Your task to perform on an android device: How do I get to the nearest McDonalds? Image 0: 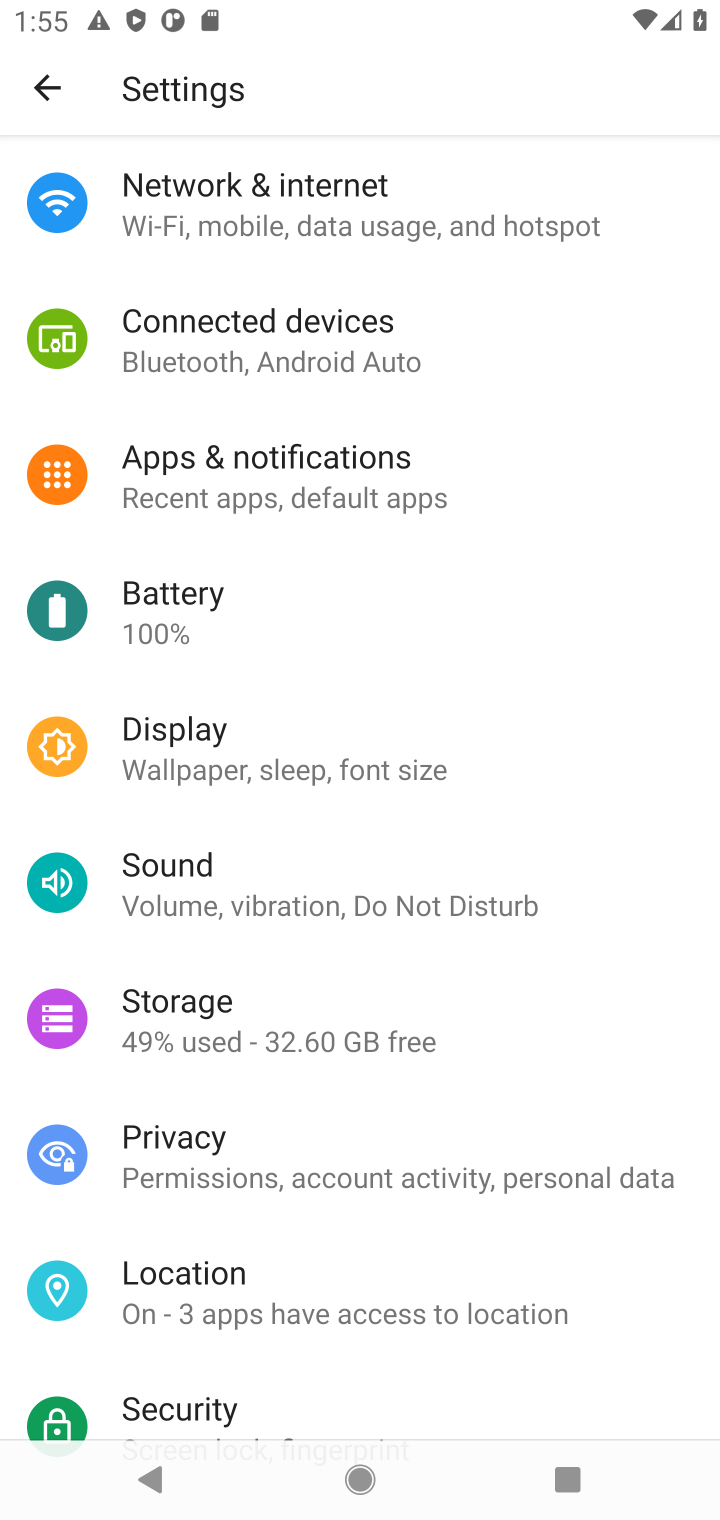
Step 0: press back button
Your task to perform on an android device: How do I get to the nearest McDonalds? Image 1: 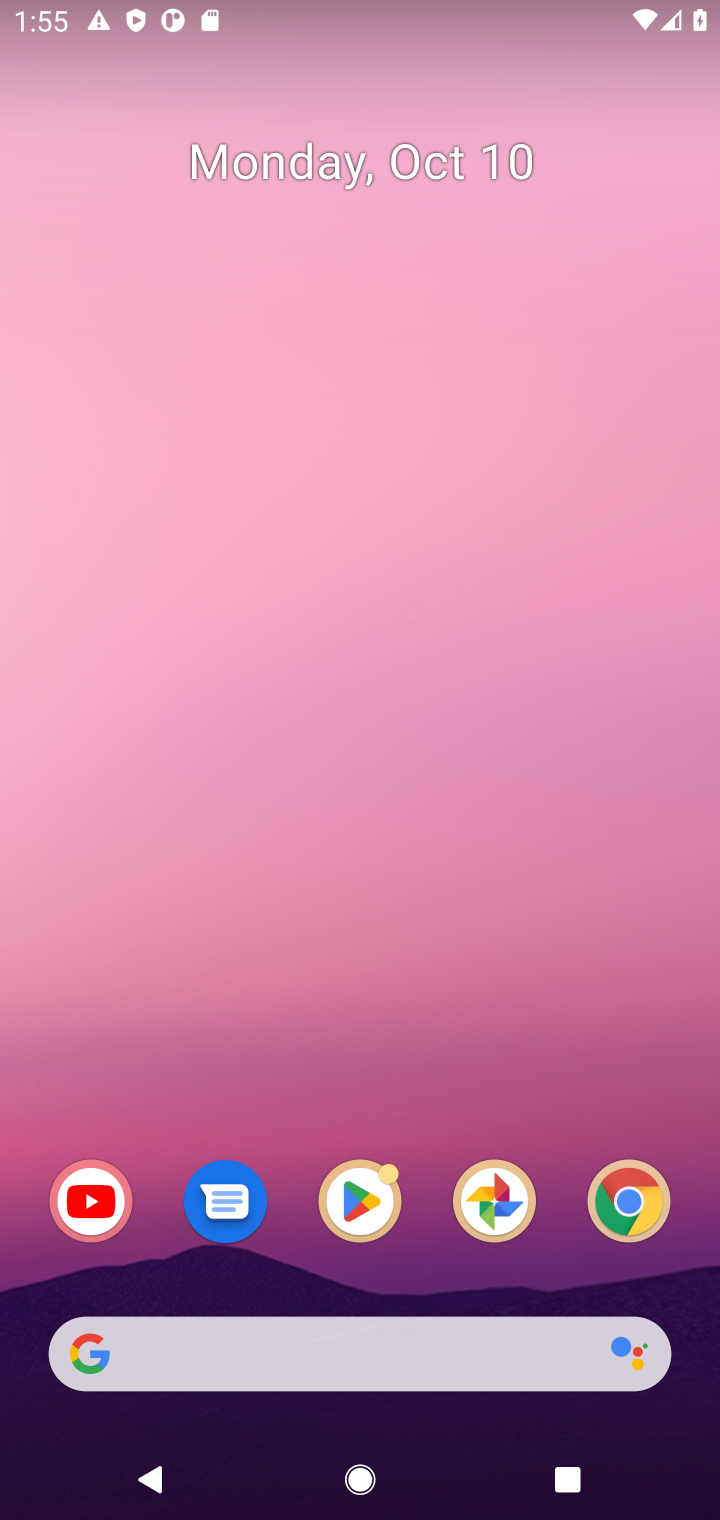
Step 1: click (325, 1354)
Your task to perform on an android device: How do I get to the nearest McDonalds? Image 2: 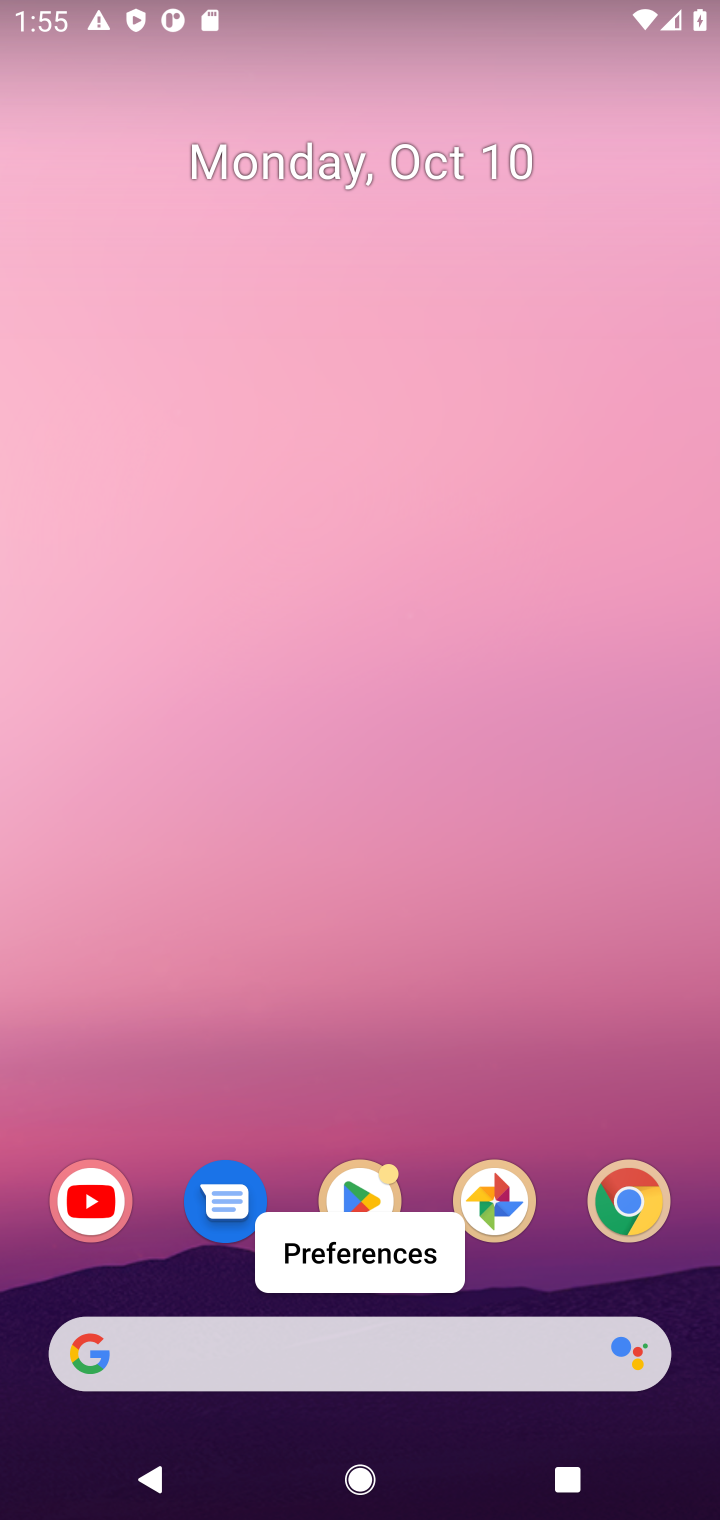
Step 2: click (440, 1355)
Your task to perform on an android device: How do I get to the nearest McDonalds? Image 3: 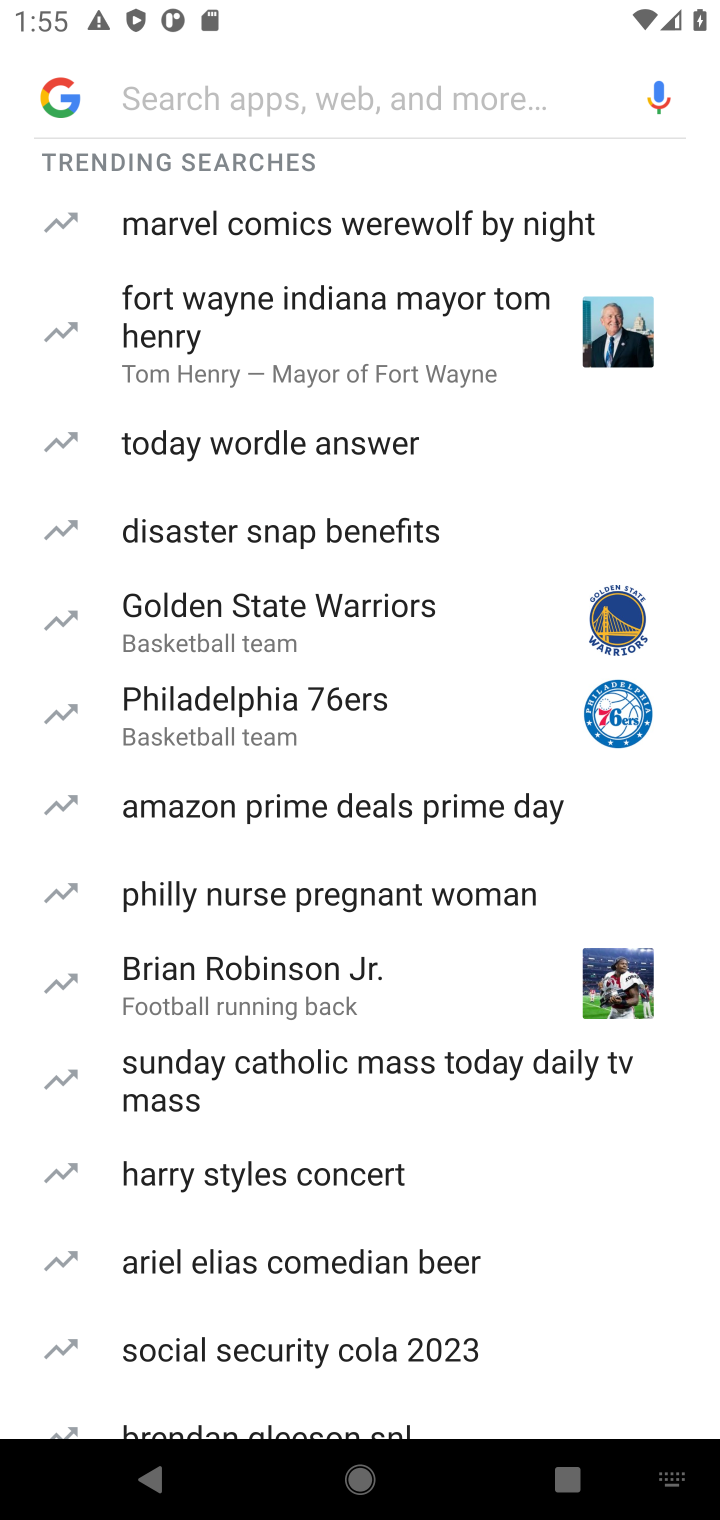
Step 3: type "nearest McDonalds"
Your task to perform on an android device: How do I get to the nearest McDonalds? Image 4: 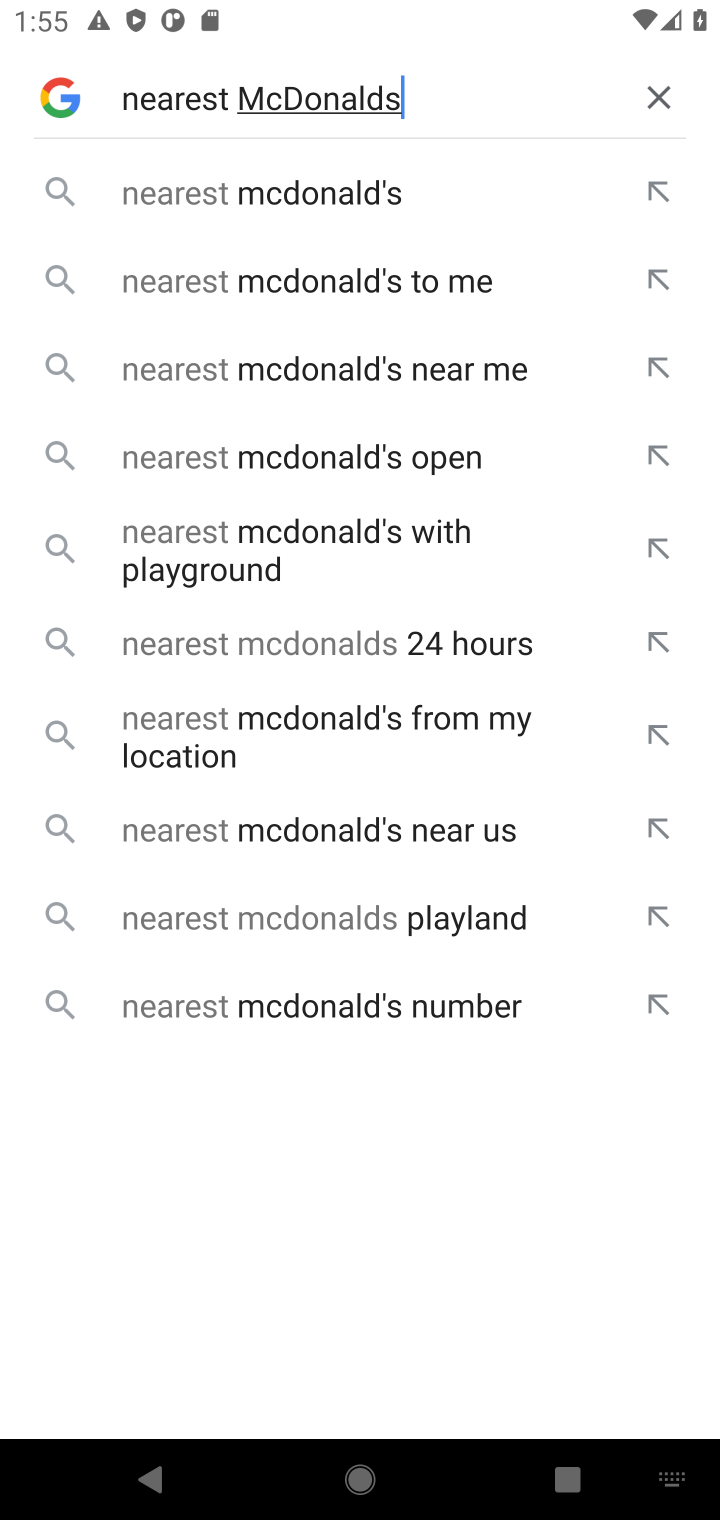
Step 4: type ""
Your task to perform on an android device: How do I get to the nearest McDonalds? Image 5: 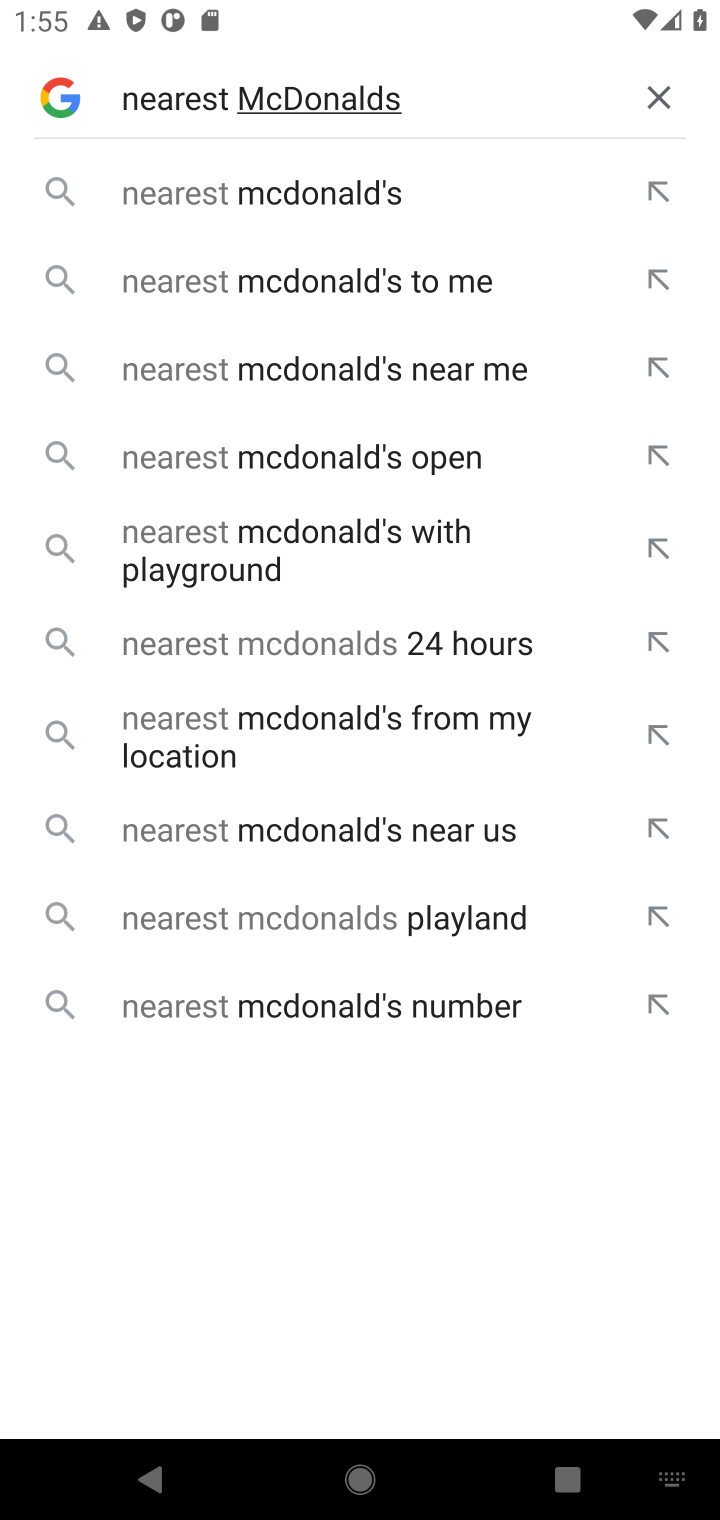
Step 5: press enter
Your task to perform on an android device: How do I get to the nearest McDonalds? Image 6: 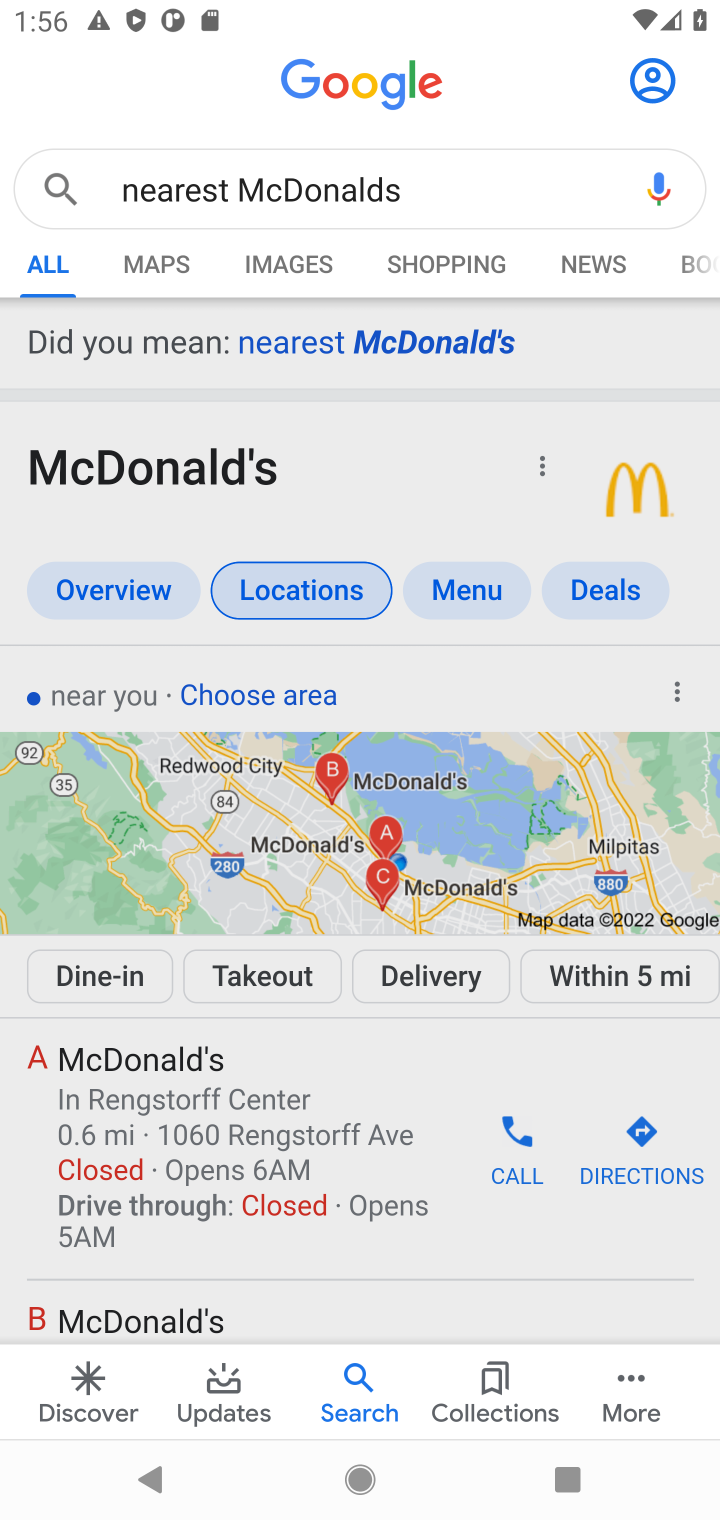
Step 6: drag from (479, 1294) to (456, 604)
Your task to perform on an android device: How do I get to the nearest McDonalds? Image 7: 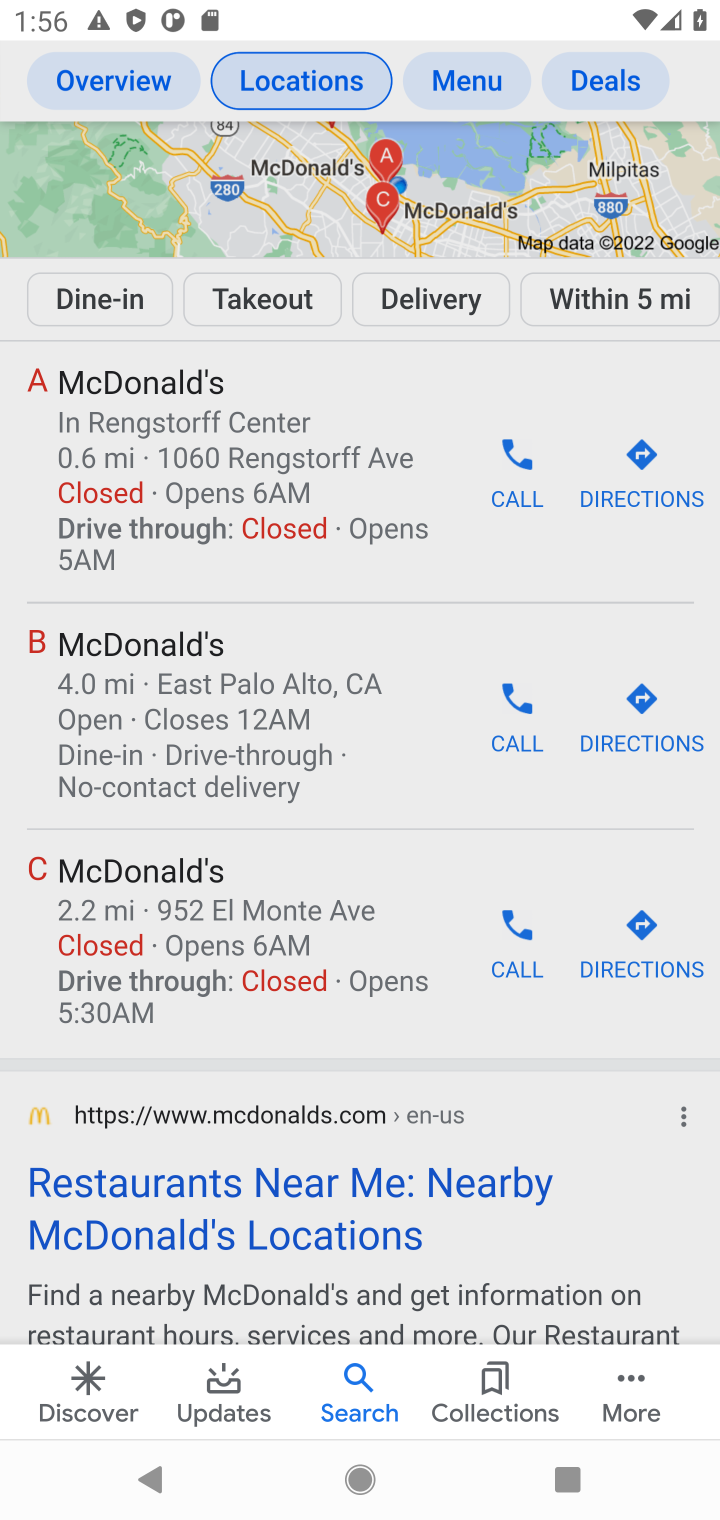
Step 7: drag from (470, 1014) to (406, 471)
Your task to perform on an android device: How do I get to the nearest McDonalds? Image 8: 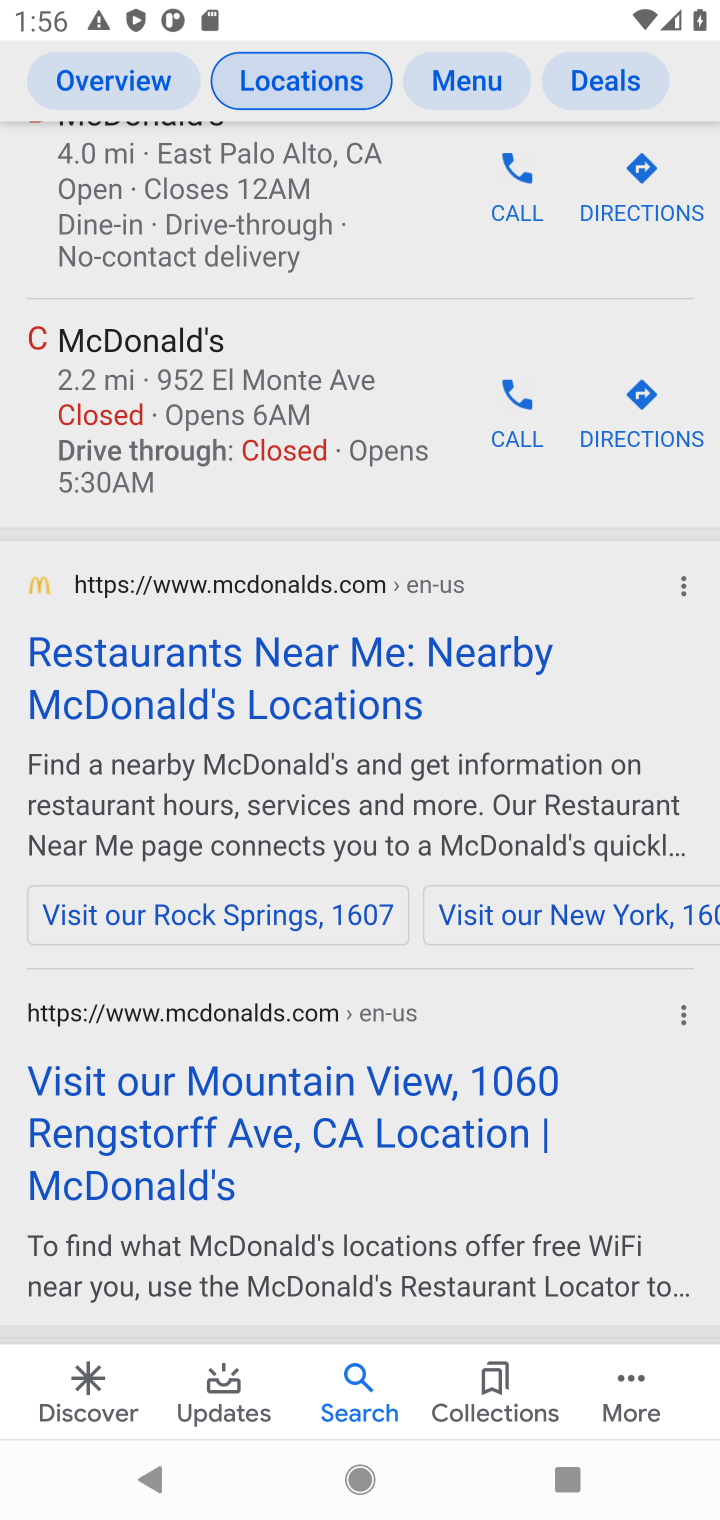
Step 8: drag from (580, 1121) to (511, 235)
Your task to perform on an android device: How do I get to the nearest McDonalds? Image 9: 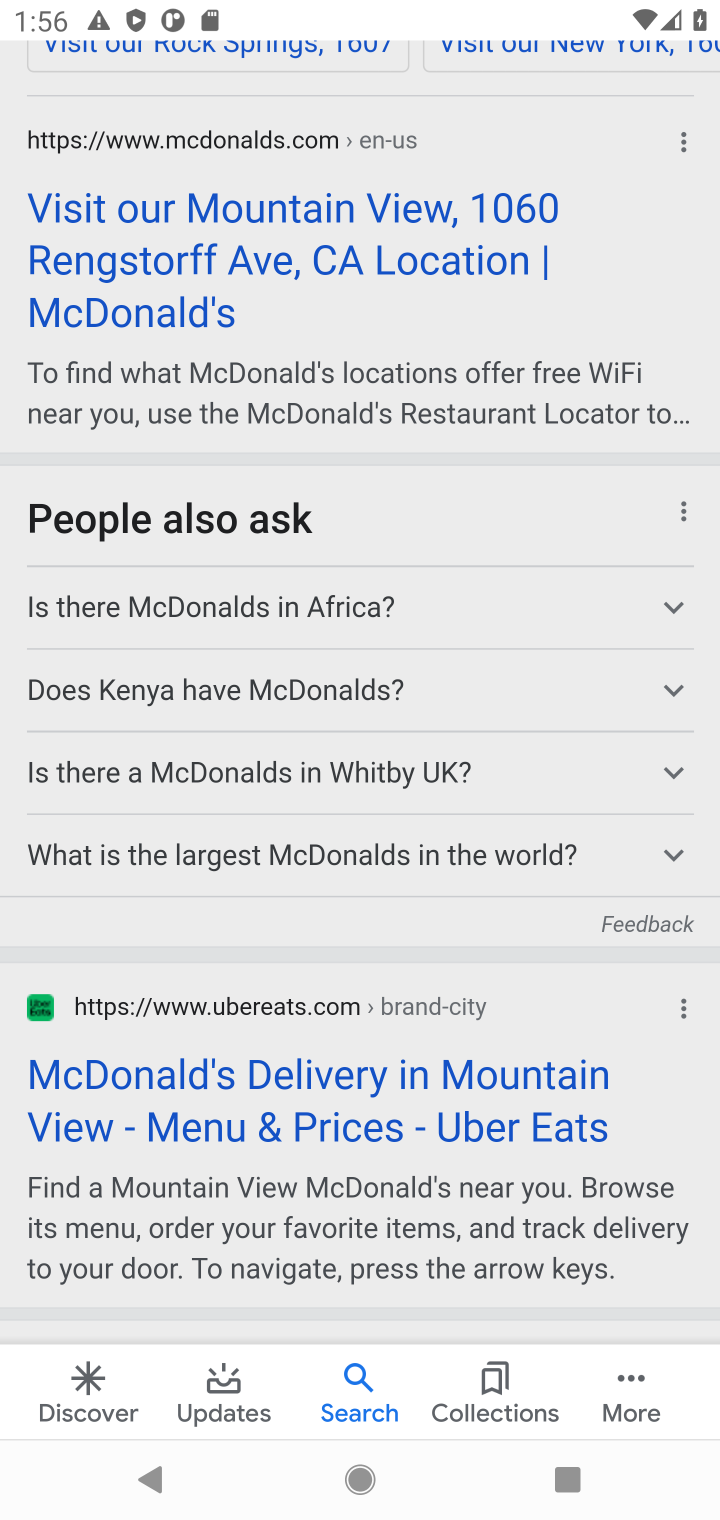
Step 9: click (511, 237)
Your task to perform on an android device: How do I get to the nearest McDonalds? Image 10: 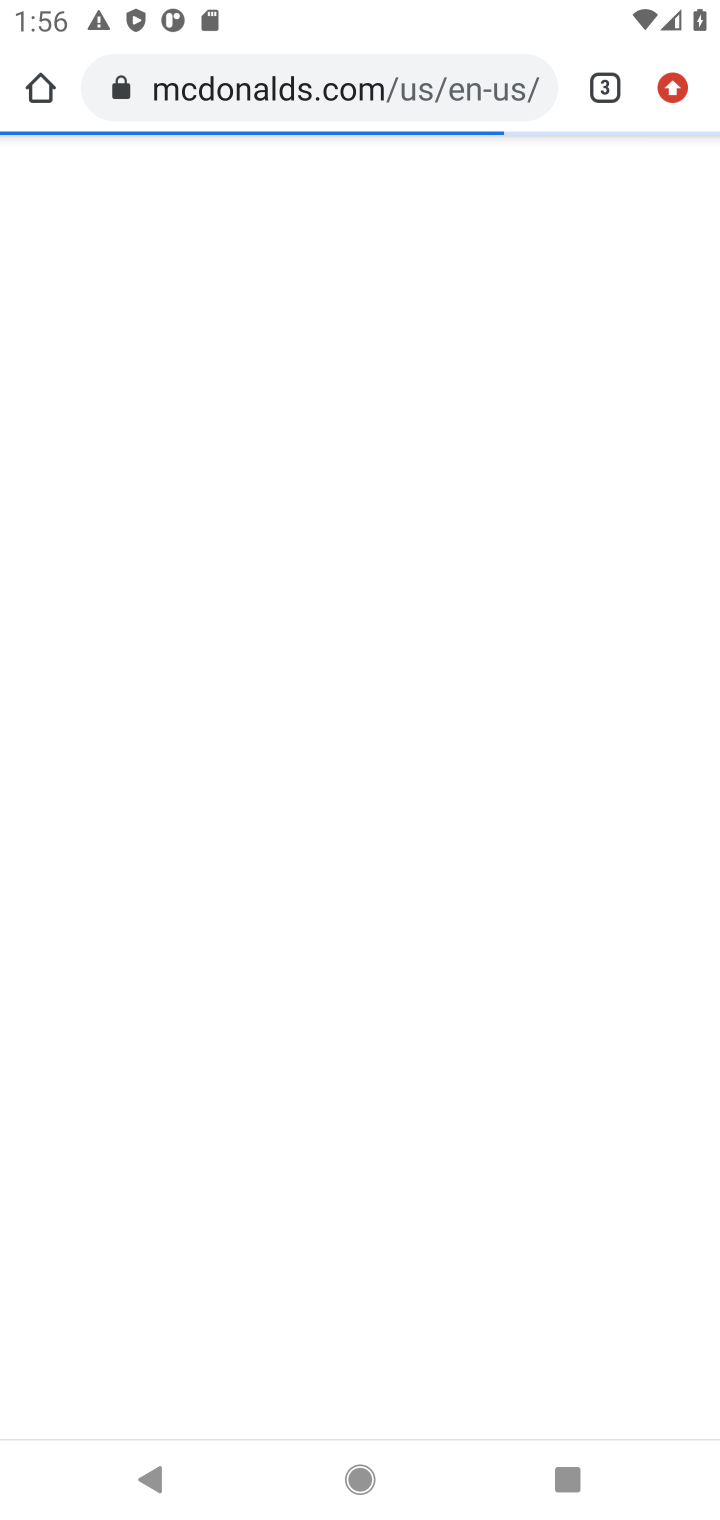
Step 10: click (502, 251)
Your task to perform on an android device: How do I get to the nearest McDonalds? Image 11: 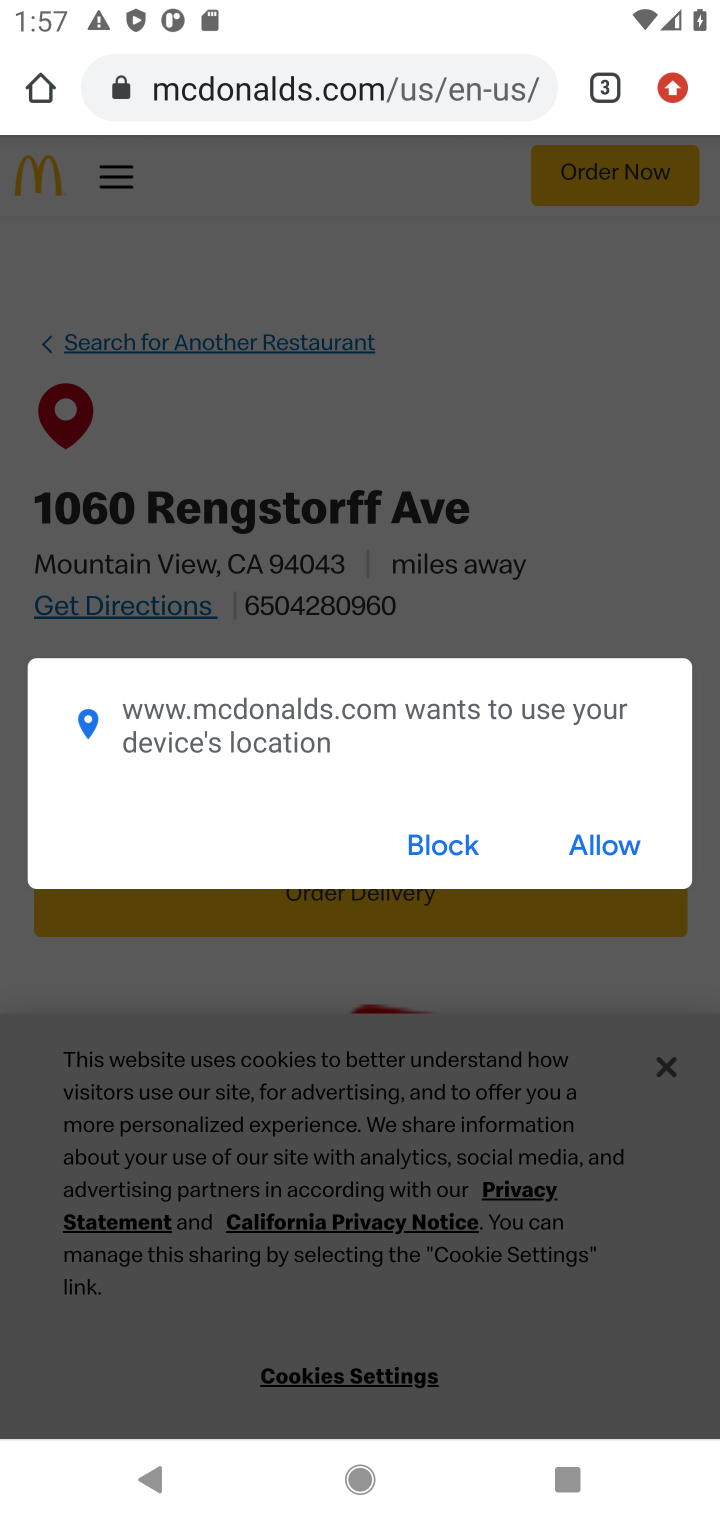
Step 11: click (432, 860)
Your task to perform on an android device: How do I get to the nearest McDonalds? Image 12: 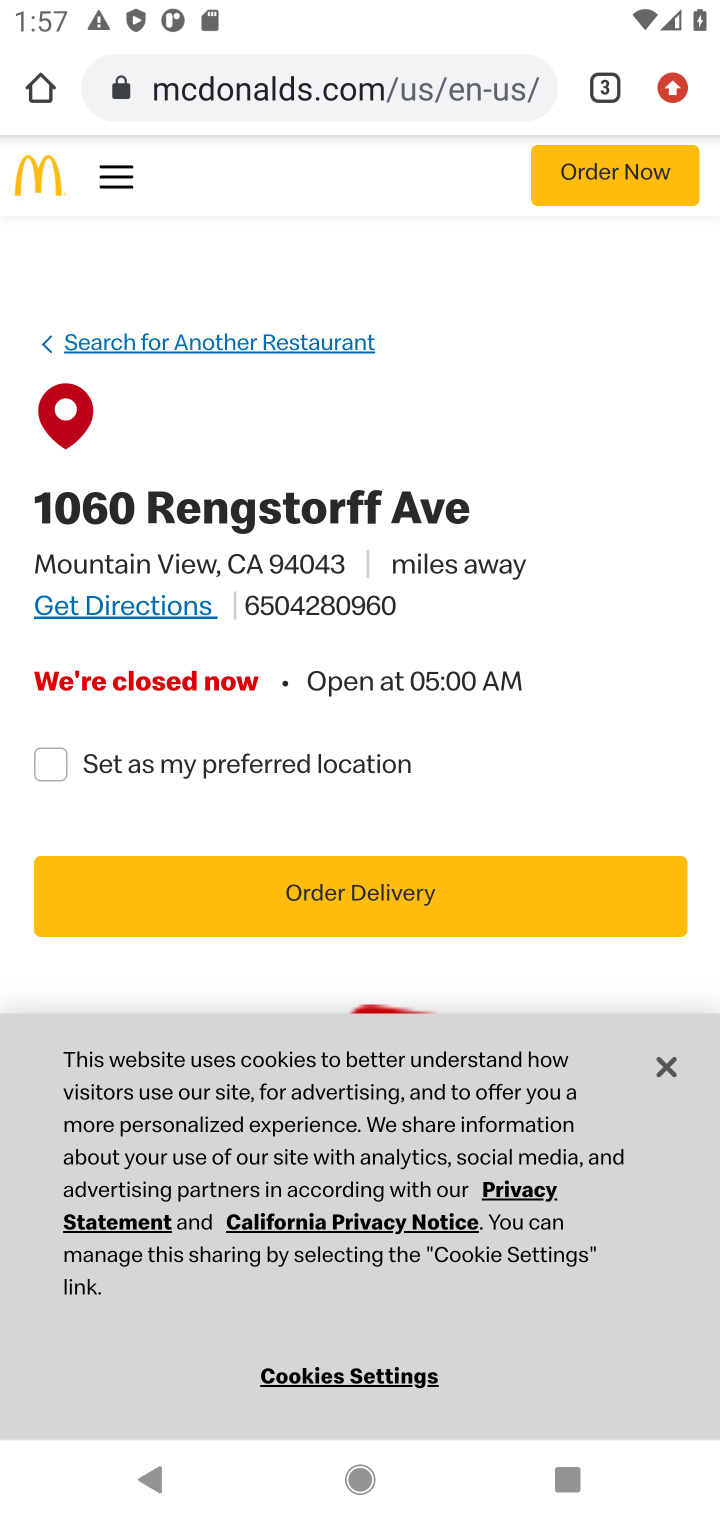
Step 12: task complete